Your task to perform on an android device: Open privacy settings Image 0: 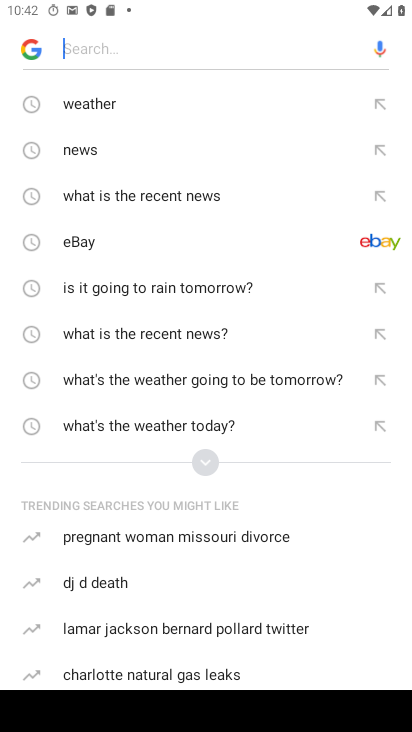
Step 0: press home button
Your task to perform on an android device: Open privacy settings Image 1: 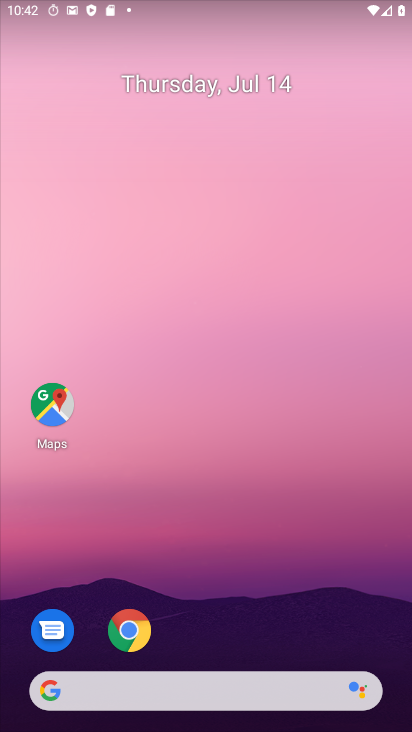
Step 1: drag from (234, 640) to (251, 150)
Your task to perform on an android device: Open privacy settings Image 2: 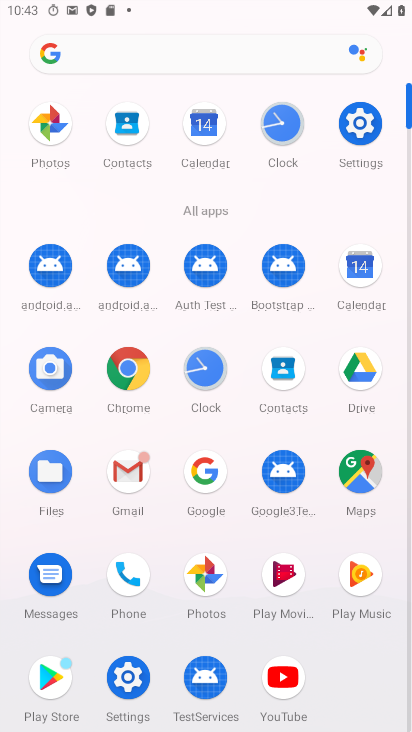
Step 2: click (122, 681)
Your task to perform on an android device: Open privacy settings Image 3: 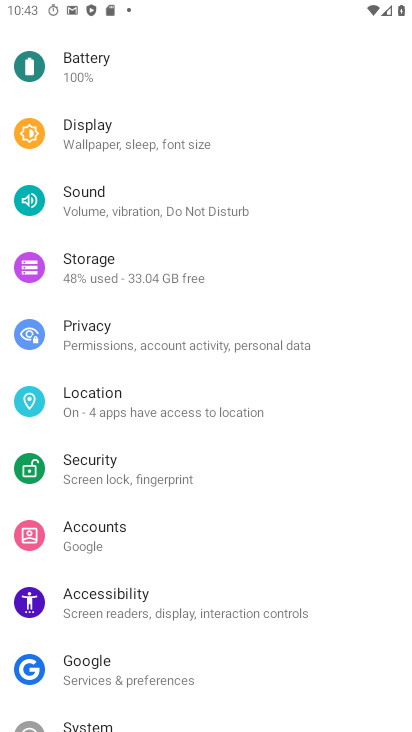
Step 3: click (155, 344)
Your task to perform on an android device: Open privacy settings Image 4: 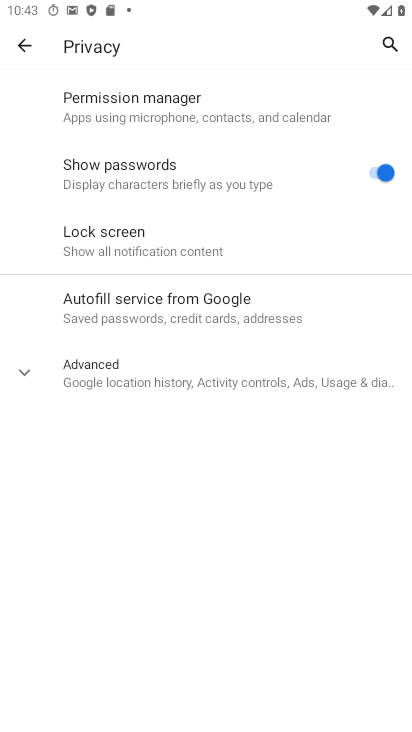
Step 4: task complete